Your task to perform on an android device: Check the weather Image 0: 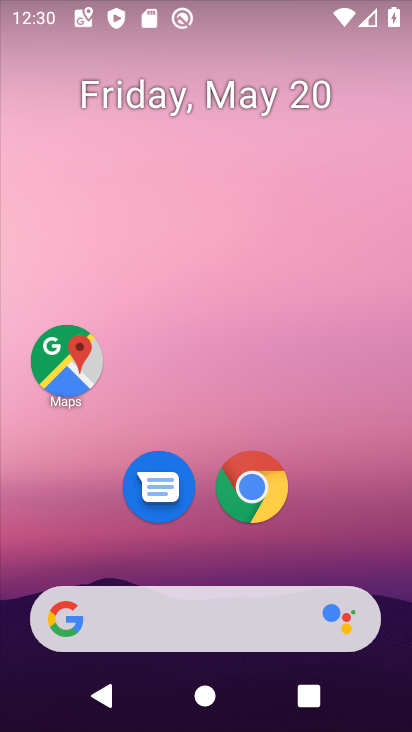
Step 0: click (175, 620)
Your task to perform on an android device: Check the weather Image 1: 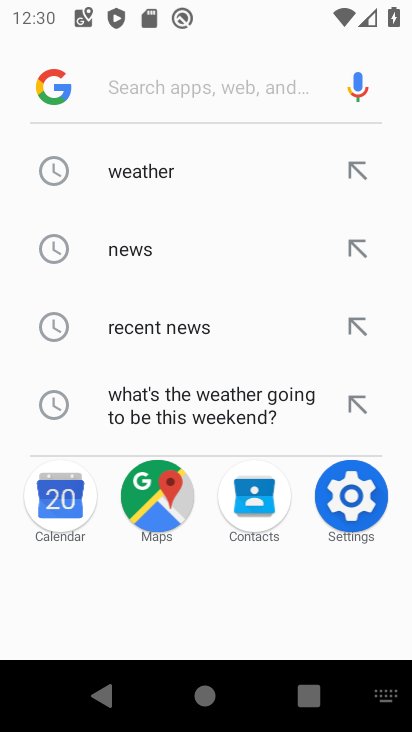
Step 1: click (124, 178)
Your task to perform on an android device: Check the weather Image 2: 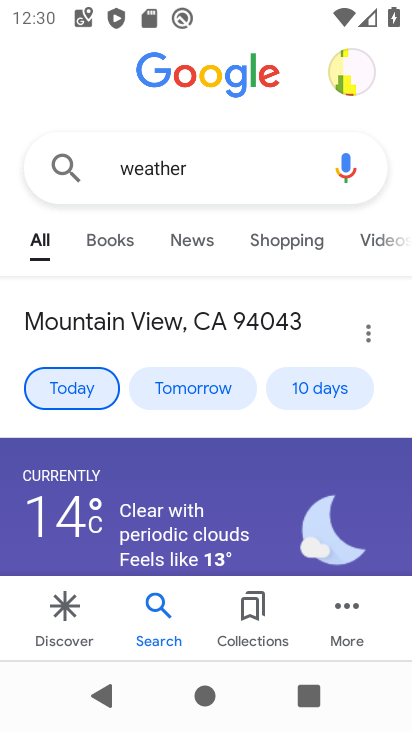
Step 2: task complete